Your task to perform on an android device: toggle improve location accuracy Image 0: 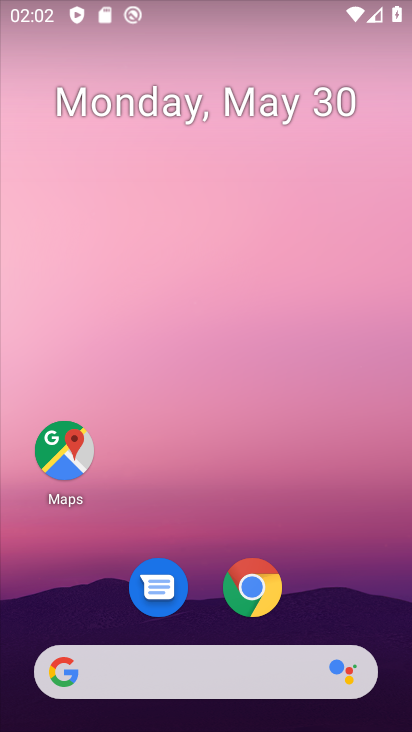
Step 0: drag from (148, 723) to (188, 49)
Your task to perform on an android device: toggle improve location accuracy Image 1: 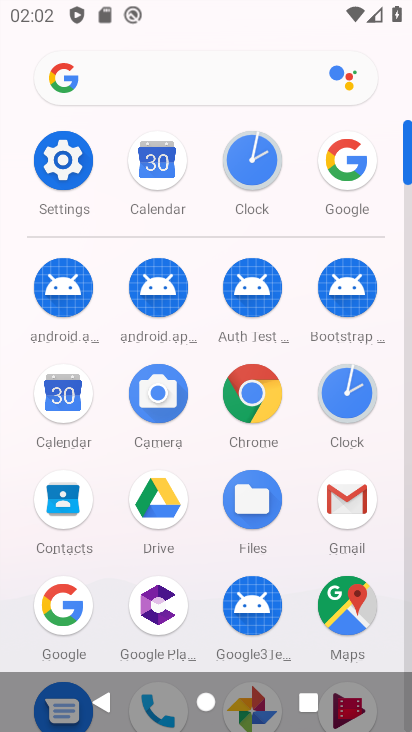
Step 1: click (53, 179)
Your task to perform on an android device: toggle improve location accuracy Image 2: 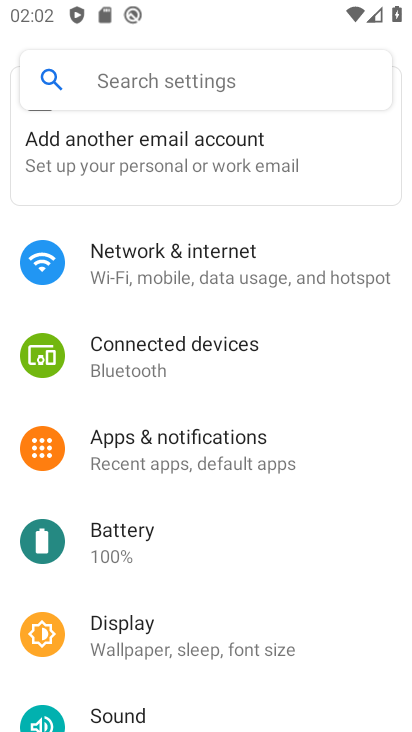
Step 2: drag from (279, 688) to (289, 315)
Your task to perform on an android device: toggle improve location accuracy Image 3: 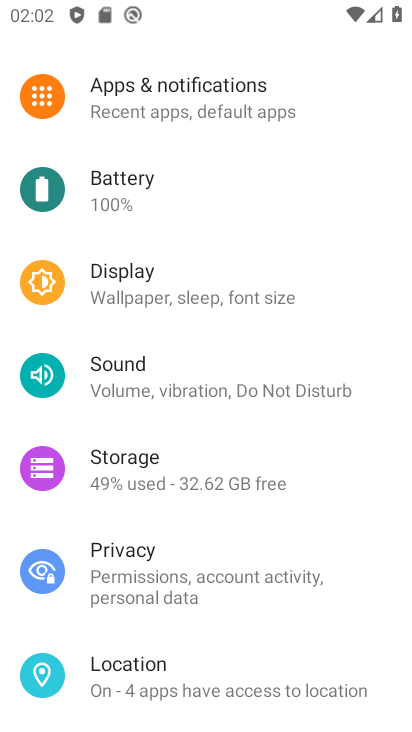
Step 3: click (194, 668)
Your task to perform on an android device: toggle improve location accuracy Image 4: 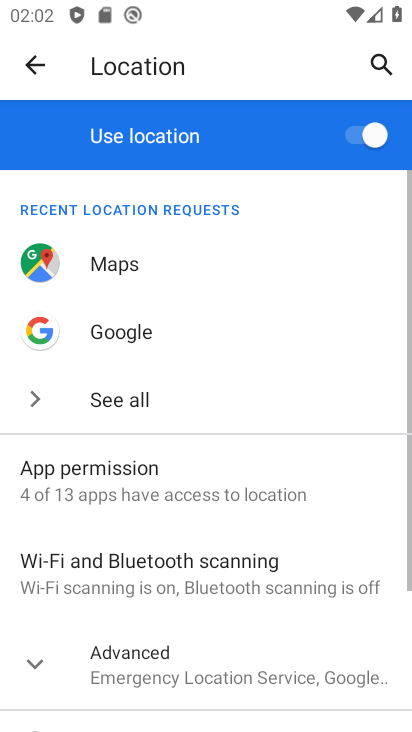
Step 4: drag from (270, 671) to (286, 244)
Your task to perform on an android device: toggle improve location accuracy Image 5: 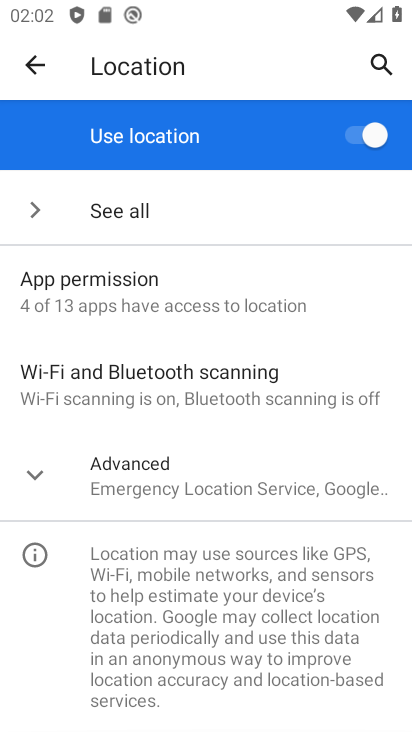
Step 5: click (234, 468)
Your task to perform on an android device: toggle improve location accuracy Image 6: 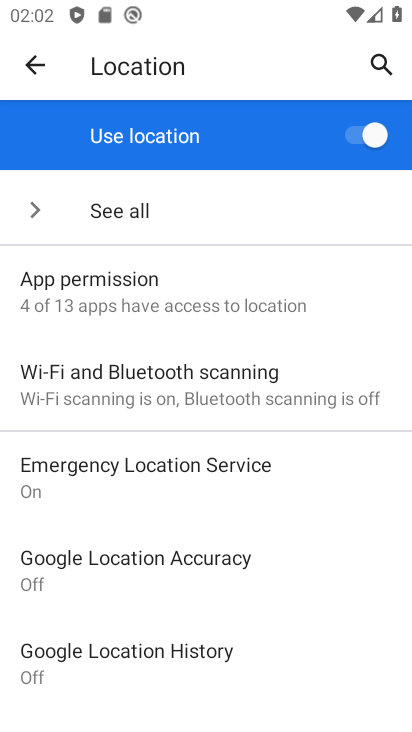
Step 6: click (220, 585)
Your task to perform on an android device: toggle improve location accuracy Image 7: 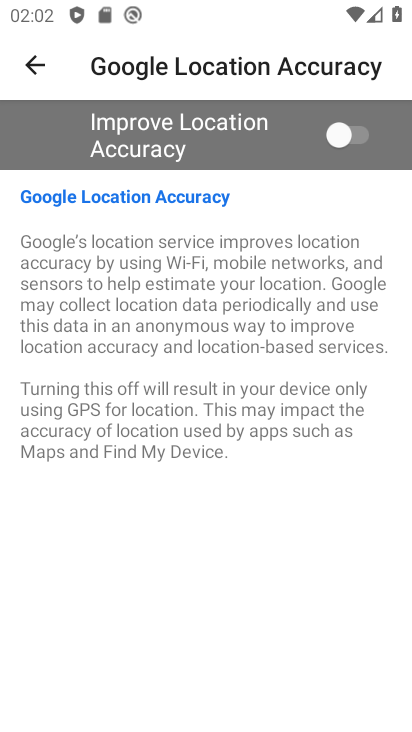
Step 7: click (341, 129)
Your task to perform on an android device: toggle improve location accuracy Image 8: 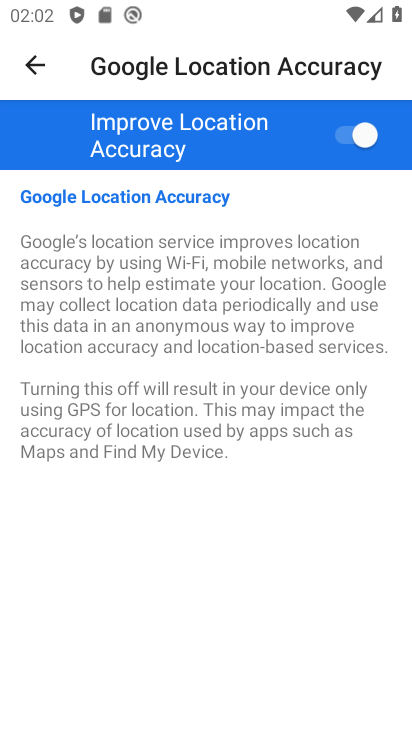
Step 8: task complete